Your task to perform on an android device: Open calendar and show me the third week of next month Image 0: 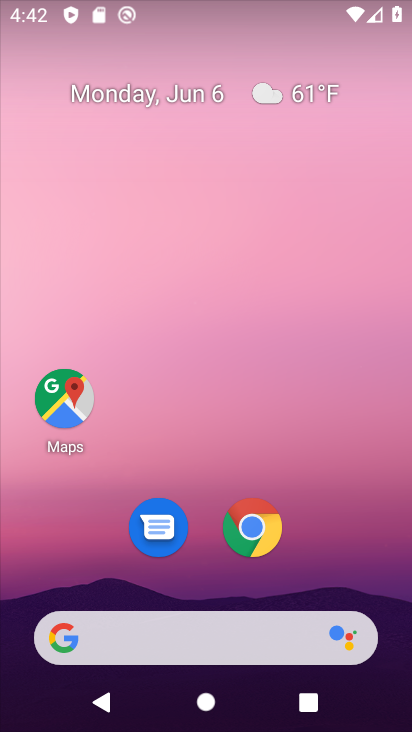
Step 0: drag from (392, 693) to (349, 32)
Your task to perform on an android device: Open calendar and show me the third week of next month Image 1: 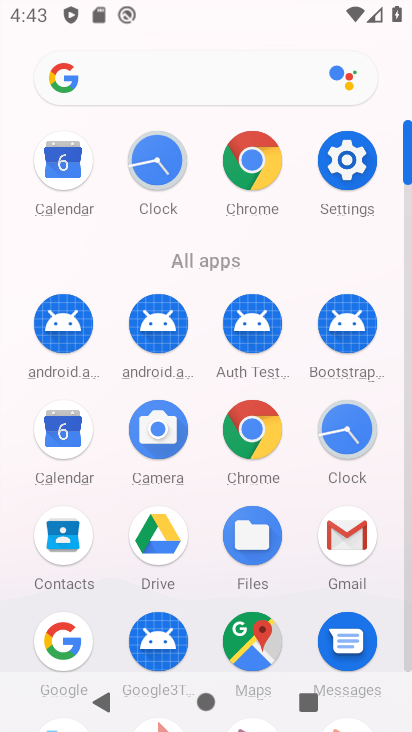
Step 1: click (40, 433)
Your task to perform on an android device: Open calendar and show me the third week of next month Image 2: 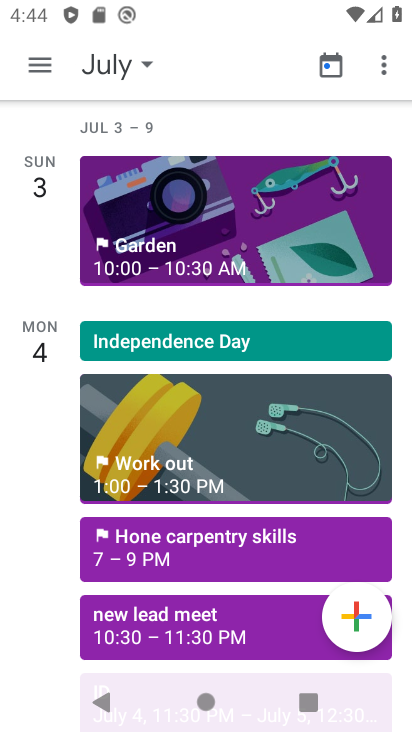
Step 2: click (145, 67)
Your task to perform on an android device: Open calendar and show me the third week of next month Image 3: 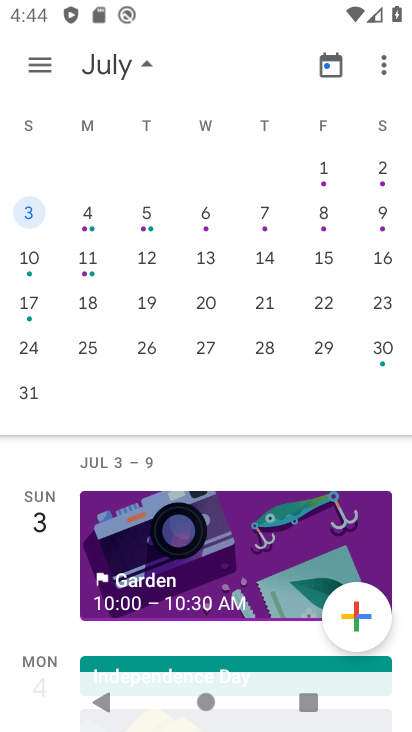
Step 3: click (193, 260)
Your task to perform on an android device: Open calendar and show me the third week of next month Image 4: 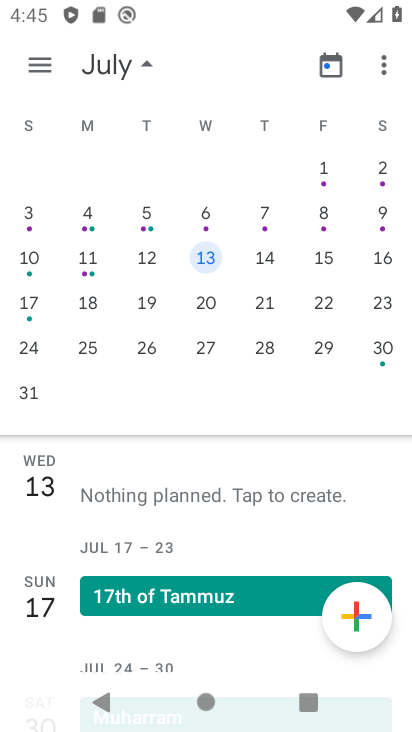
Step 4: task complete